Your task to perform on an android device: toggle priority inbox in the gmail app Image 0: 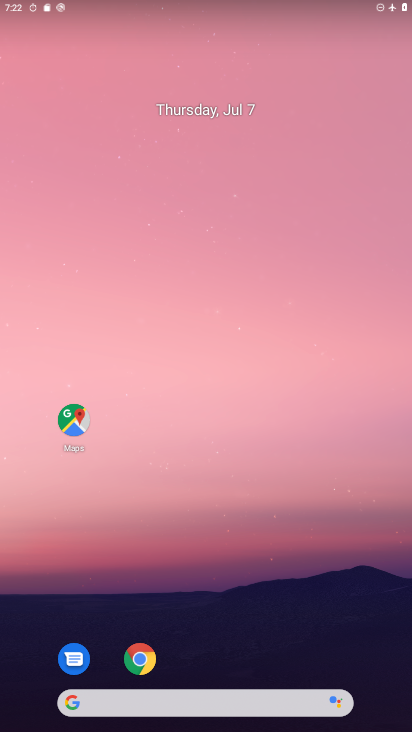
Step 0: drag from (376, 666) to (223, 40)
Your task to perform on an android device: toggle priority inbox in the gmail app Image 1: 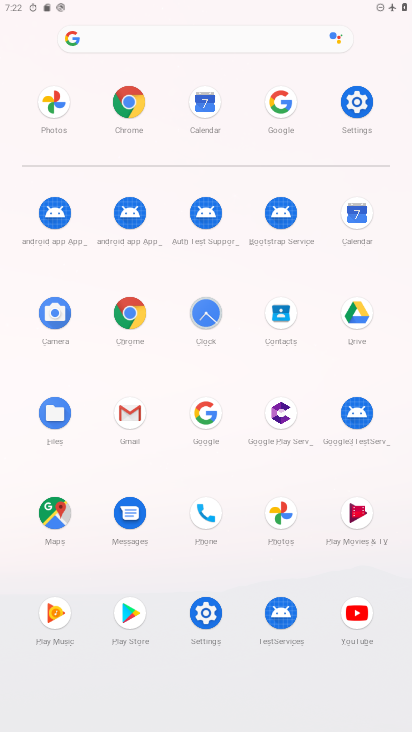
Step 1: click (123, 422)
Your task to perform on an android device: toggle priority inbox in the gmail app Image 2: 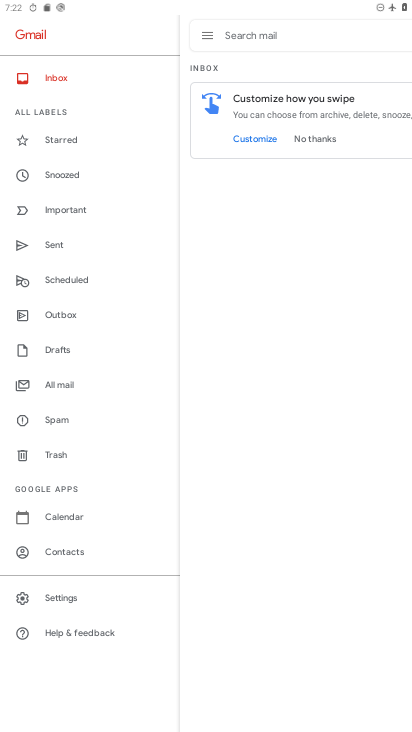
Step 2: click (70, 594)
Your task to perform on an android device: toggle priority inbox in the gmail app Image 3: 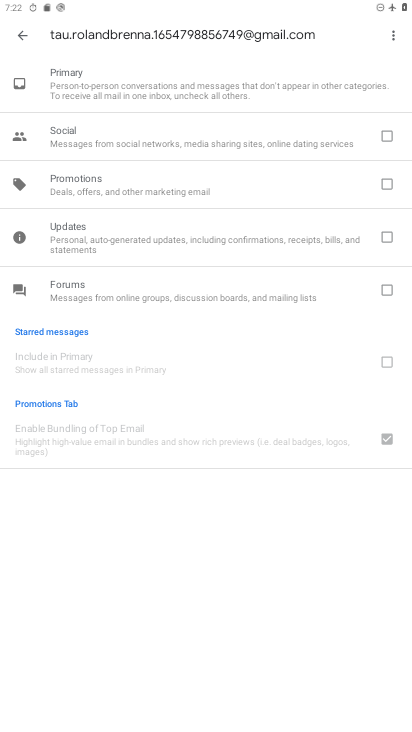
Step 3: press back button
Your task to perform on an android device: toggle priority inbox in the gmail app Image 4: 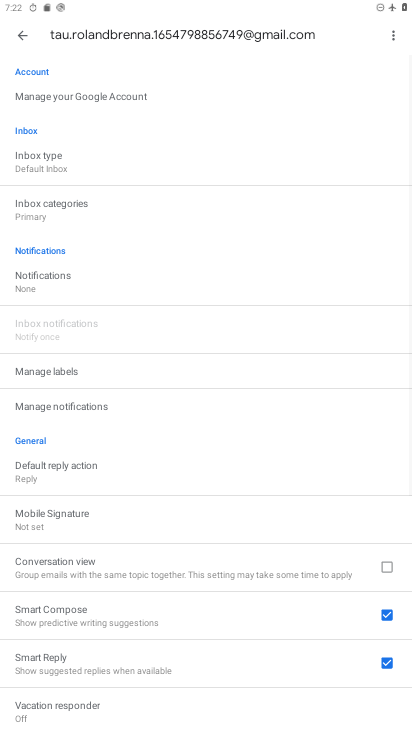
Step 4: click (68, 167)
Your task to perform on an android device: toggle priority inbox in the gmail app Image 5: 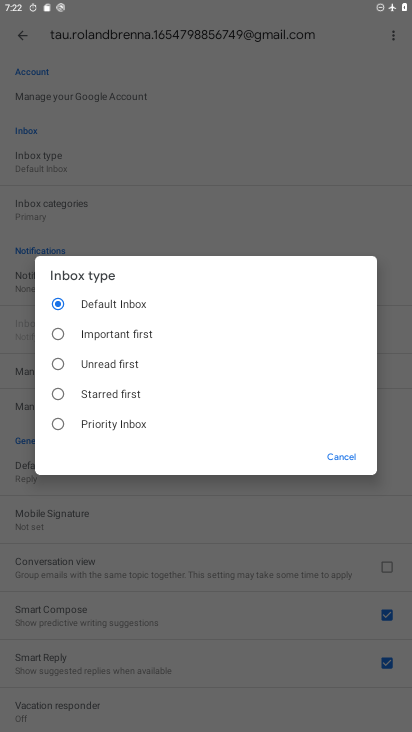
Step 5: click (57, 333)
Your task to perform on an android device: toggle priority inbox in the gmail app Image 6: 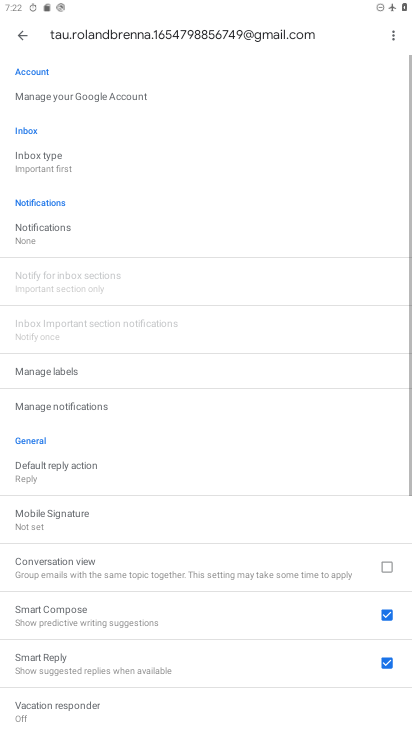
Step 6: task complete